Your task to perform on an android device: set the timer Image 0: 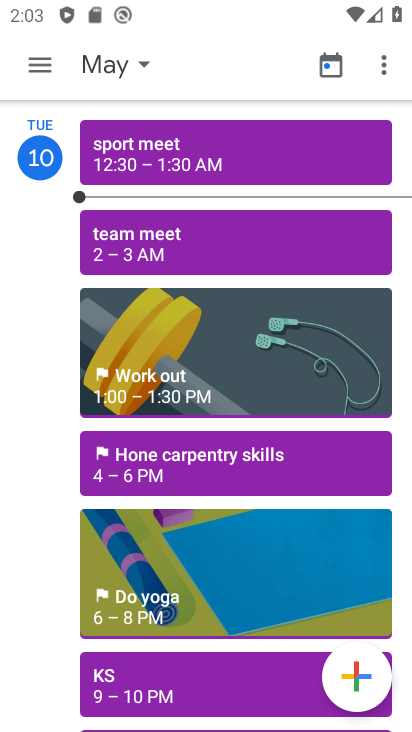
Step 0: press home button
Your task to perform on an android device: set the timer Image 1: 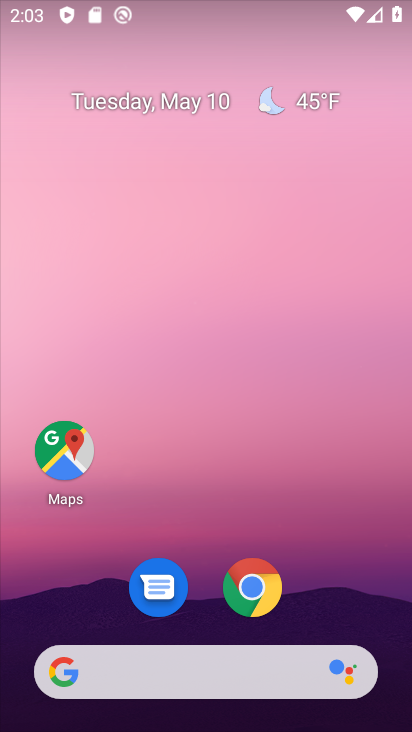
Step 1: drag from (375, 585) to (362, 143)
Your task to perform on an android device: set the timer Image 2: 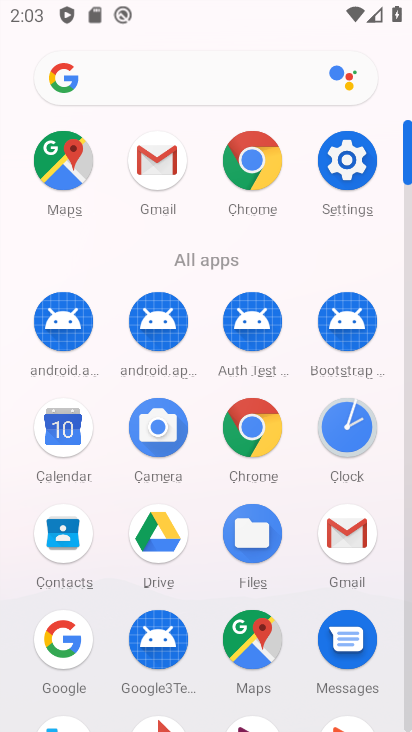
Step 2: click (337, 425)
Your task to perform on an android device: set the timer Image 3: 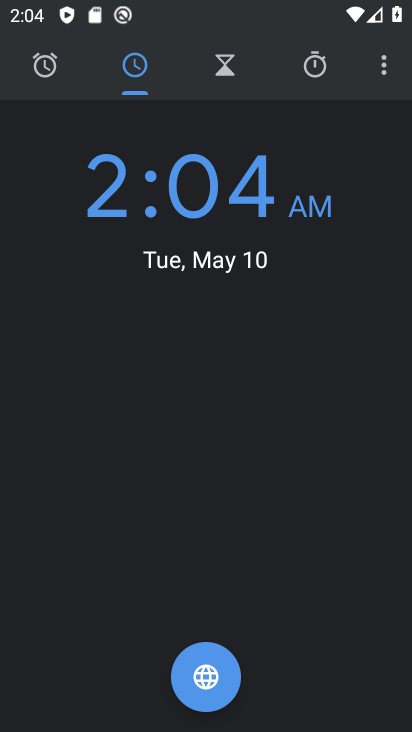
Step 3: click (225, 68)
Your task to perform on an android device: set the timer Image 4: 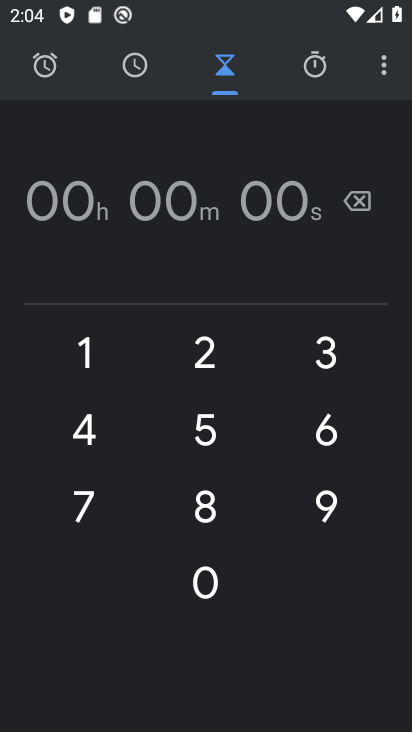
Step 4: click (88, 358)
Your task to perform on an android device: set the timer Image 5: 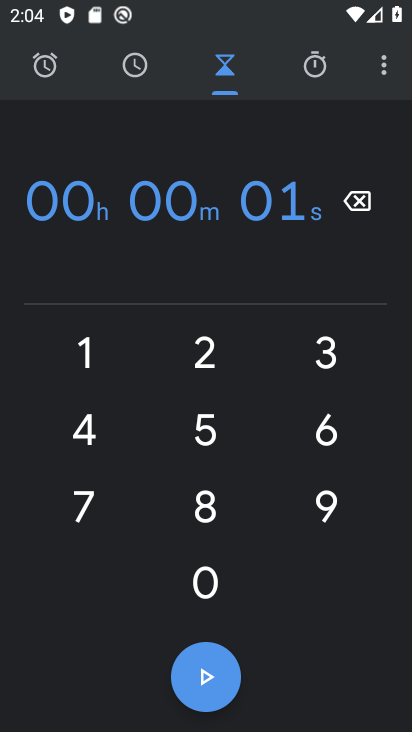
Step 5: click (215, 441)
Your task to perform on an android device: set the timer Image 6: 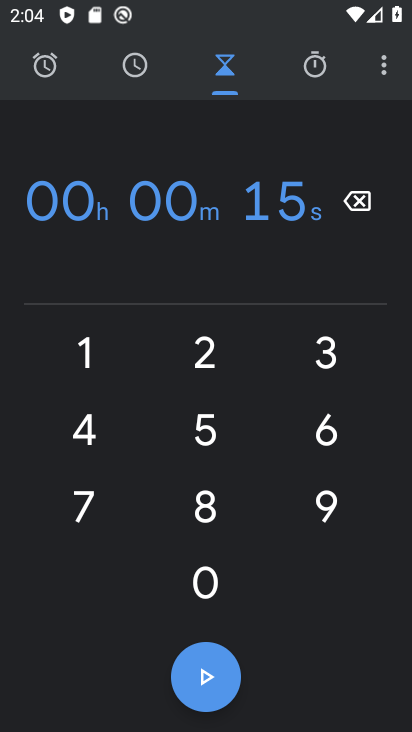
Step 6: task complete